Your task to perform on an android device: turn on bluetooth scan Image 0: 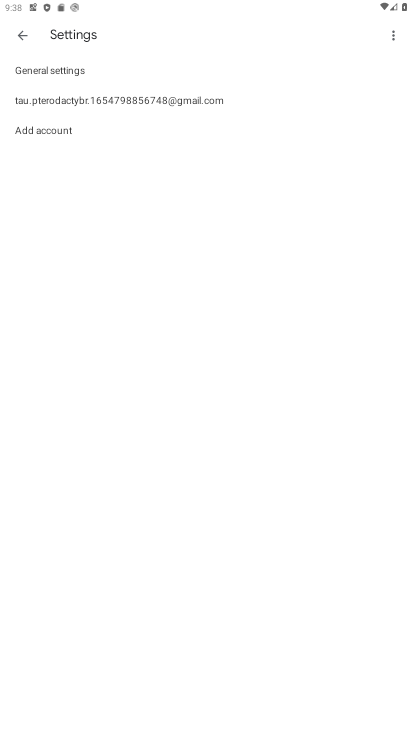
Step 0: press home button
Your task to perform on an android device: turn on bluetooth scan Image 1: 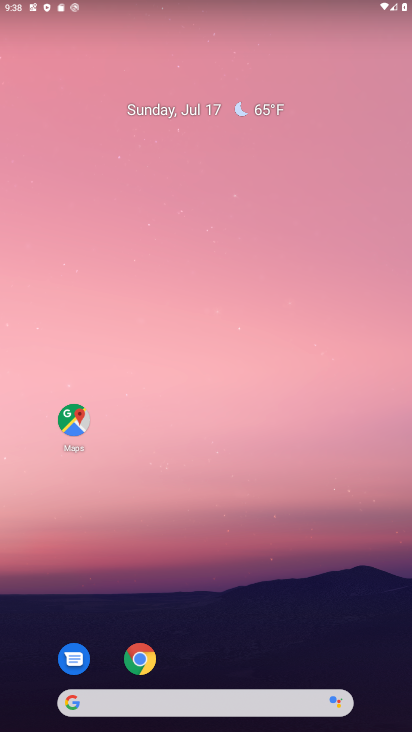
Step 1: drag from (205, 645) to (247, 175)
Your task to perform on an android device: turn on bluetooth scan Image 2: 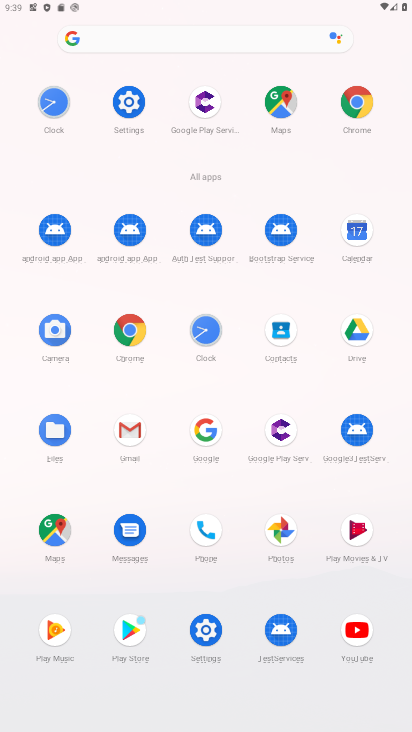
Step 2: click (121, 108)
Your task to perform on an android device: turn on bluetooth scan Image 3: 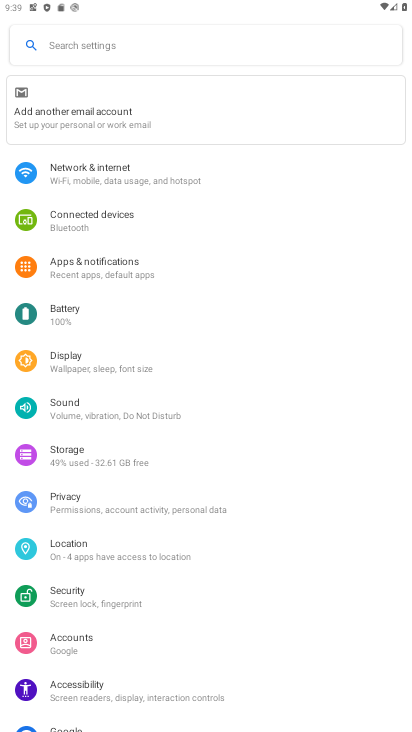
Step 3: click (117, 552)
Your task to perform on an android device: turn on bluetooth scan Image 4: 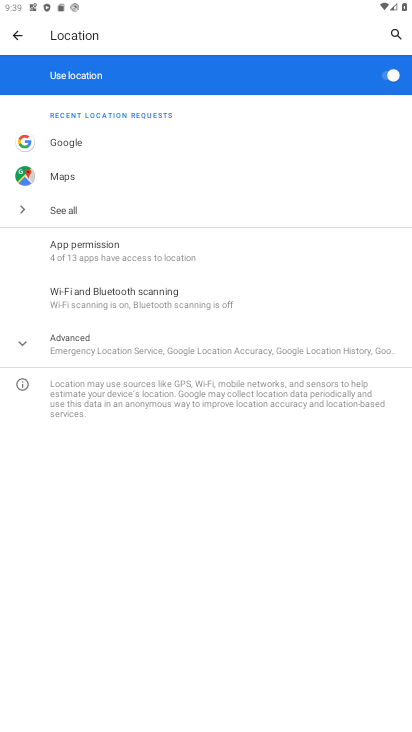
Step 4: click (186, 309)
Your task to perform on an android device: turn on bluetooth scan Image 5: 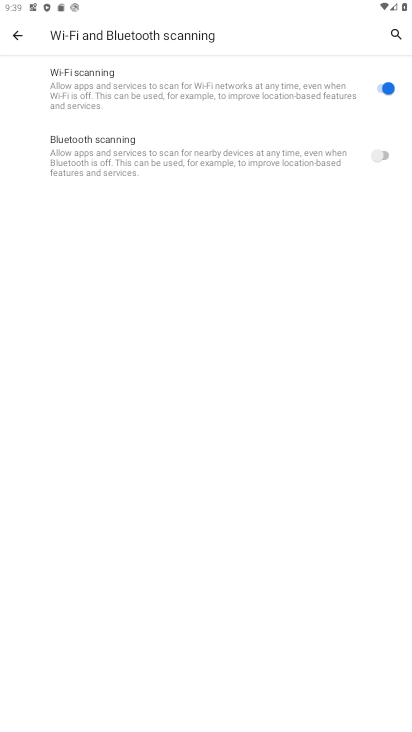
Step 5: click (387, 158)
Your task to perform on an android device: turn on bluetooth scan Image 6: 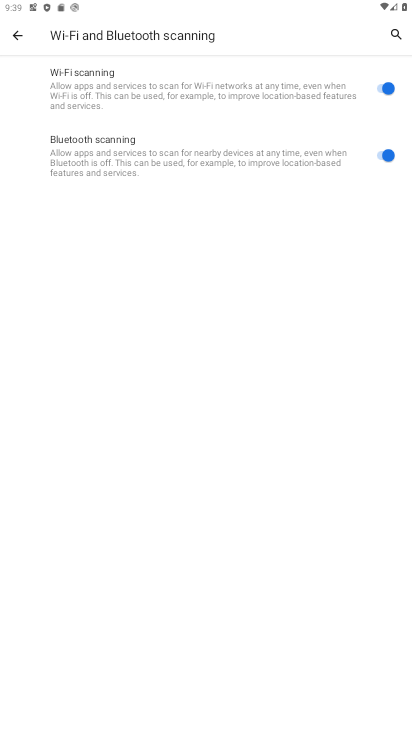
Step 6: task complete